Your task to perform on an android device: Clear the cart on bestbuy. Search for "dell xps" on bestbuy, select the first entry, and add it to the cart. Image 0: 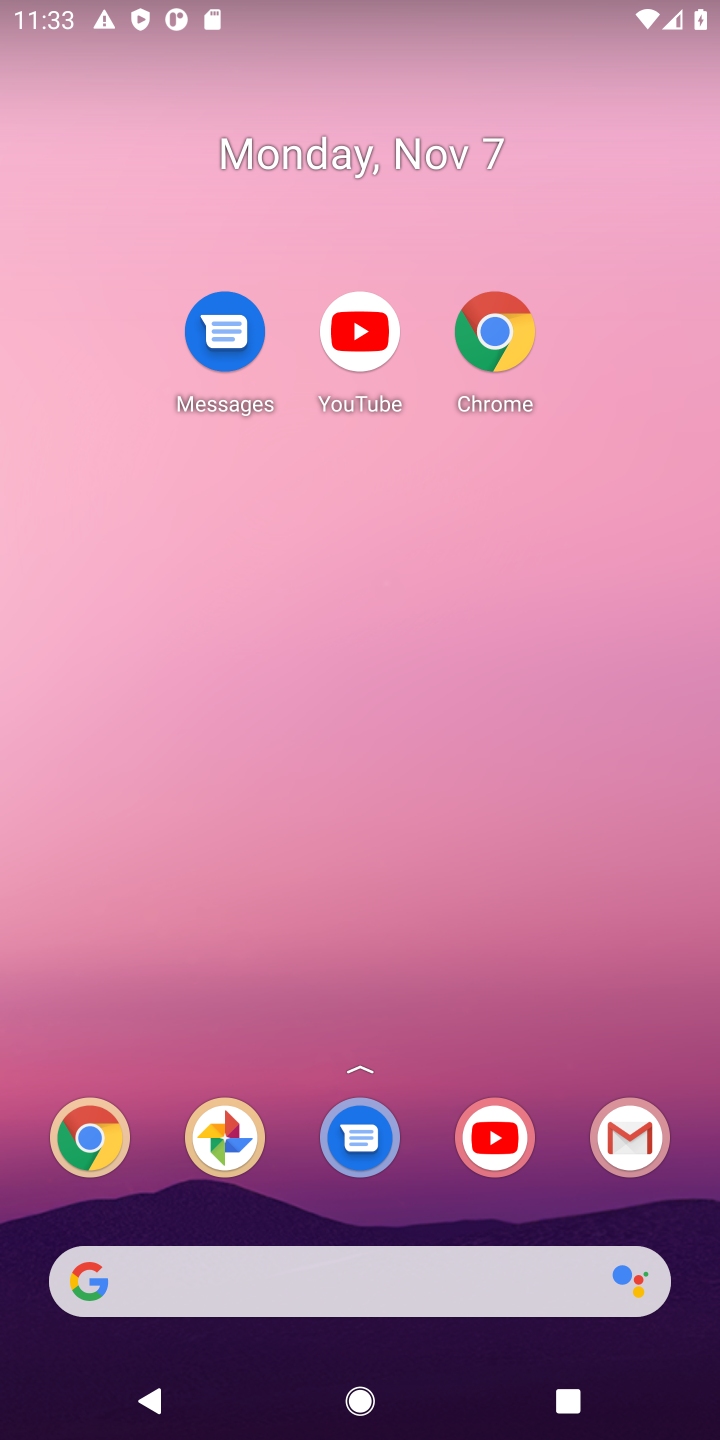
Step 0: drag from (436, 1222) to (500, 286)
Your task to perform on an android device: Clear the cart on bestbuy. Search for "dell xps" on bestbuy, select the first entry, and add it to the cart. Image 1: 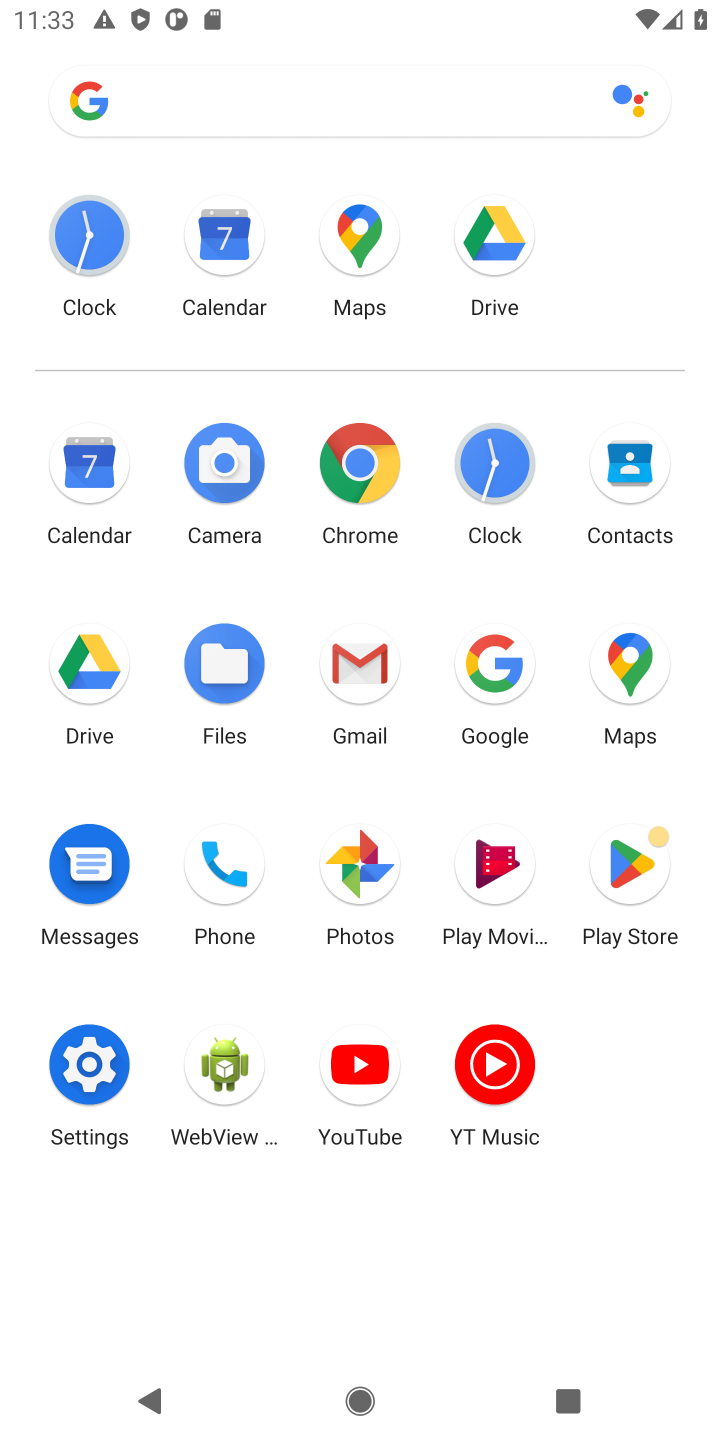
Step 1: click (363, 463)
Your task to perform on an android device: Clear the cart on bestbuy. Search for "dell xps" on bestbuy, select the first entry, and add it to the cart. Image 2: 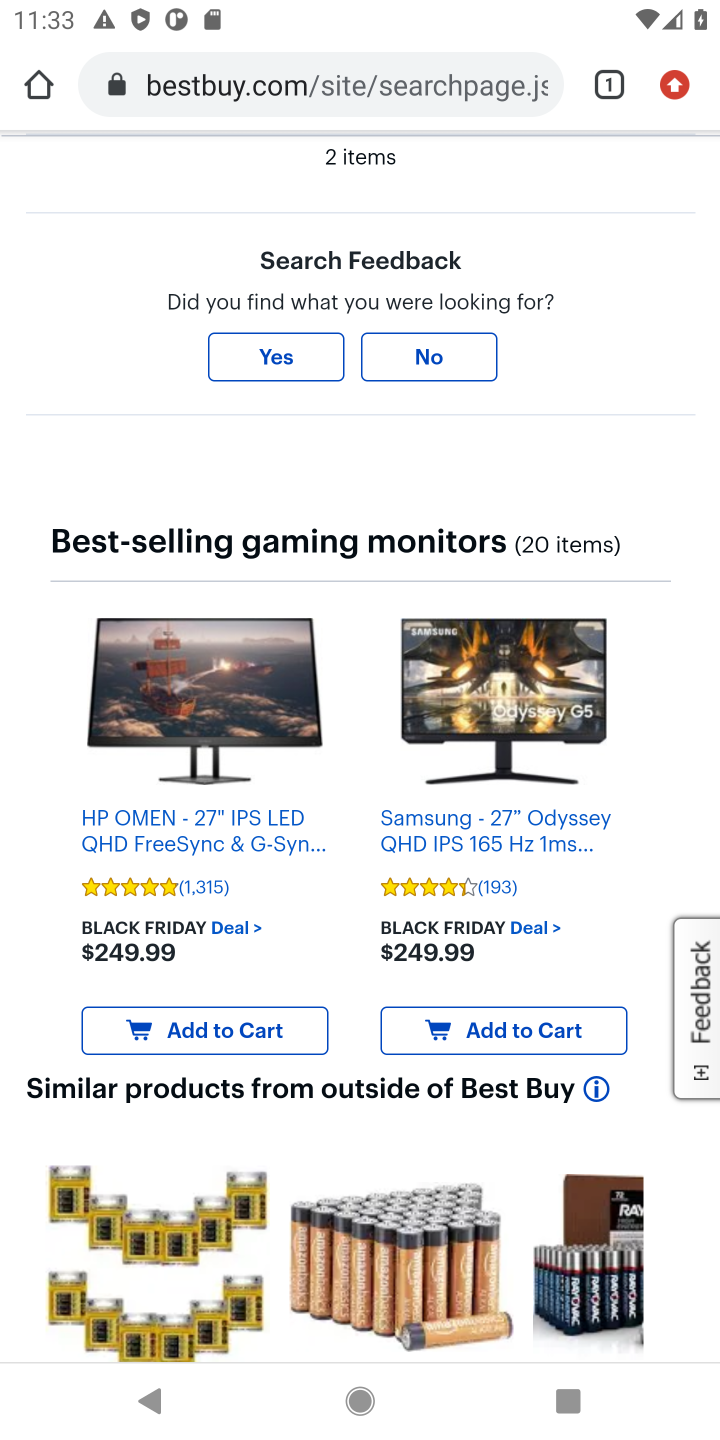
Step 2: click (449, 86)
Your task to perform on an android device: Clear the cart on bestbuy. Search for "dell xps" on bestbuy, select the first entry, and add it to the cart. Image 3: 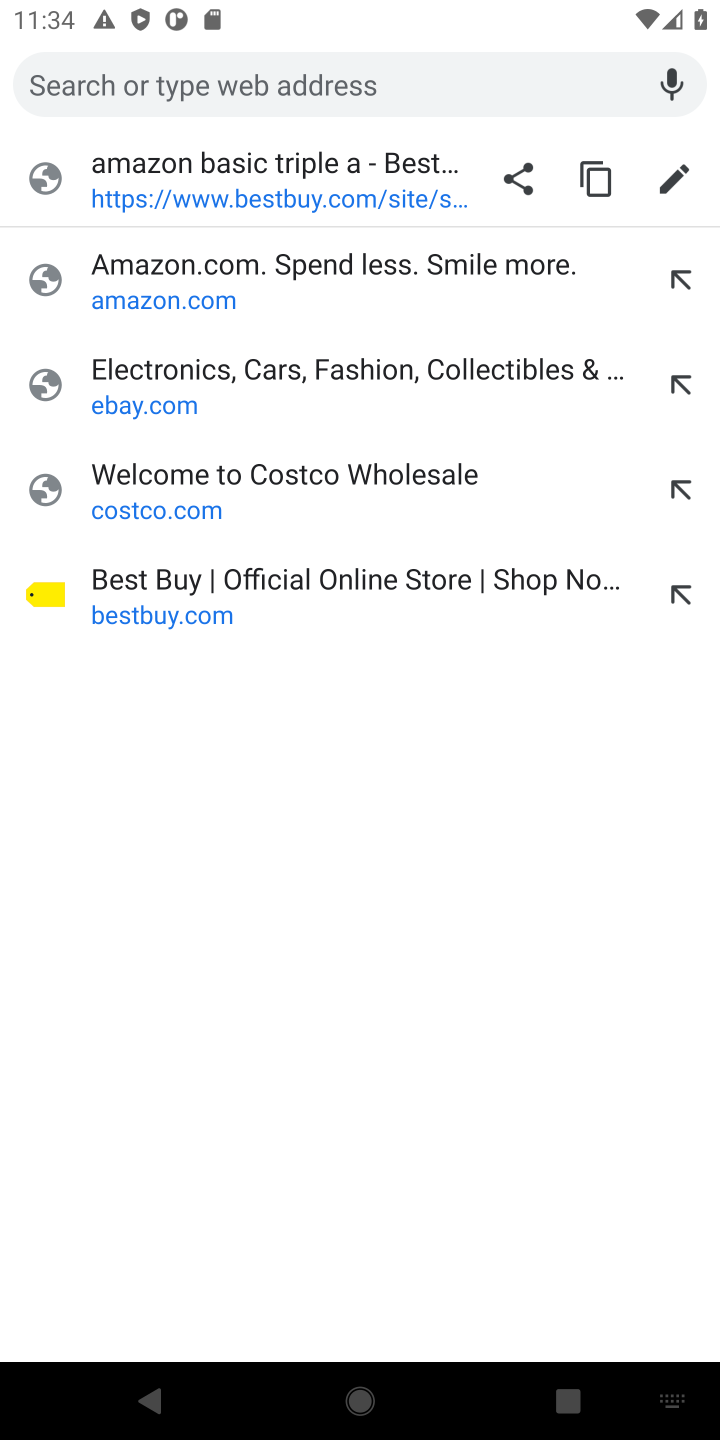
Step 3: type "bestbuy.com"
Your task to perform on an android device: Clear the cart on bestbuy. Search for "dell xps" on bestbuy, select the first entry, and add it to the cart. Image 4: 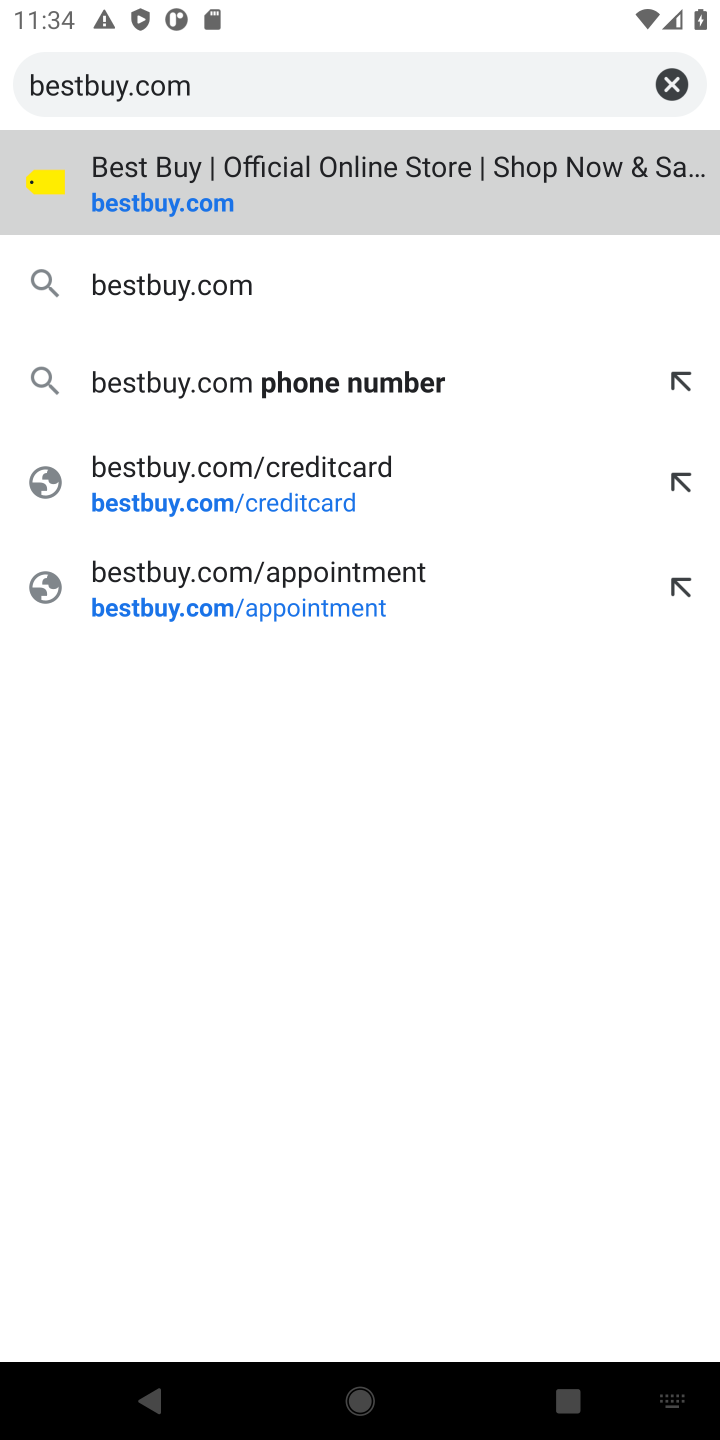
Step 4: press enter
Your task to perform on an android device: Clear the cart on bestbuy. Search for "dell xps" on bestbuy, select the first entry, and add it to the cart. Image 5: 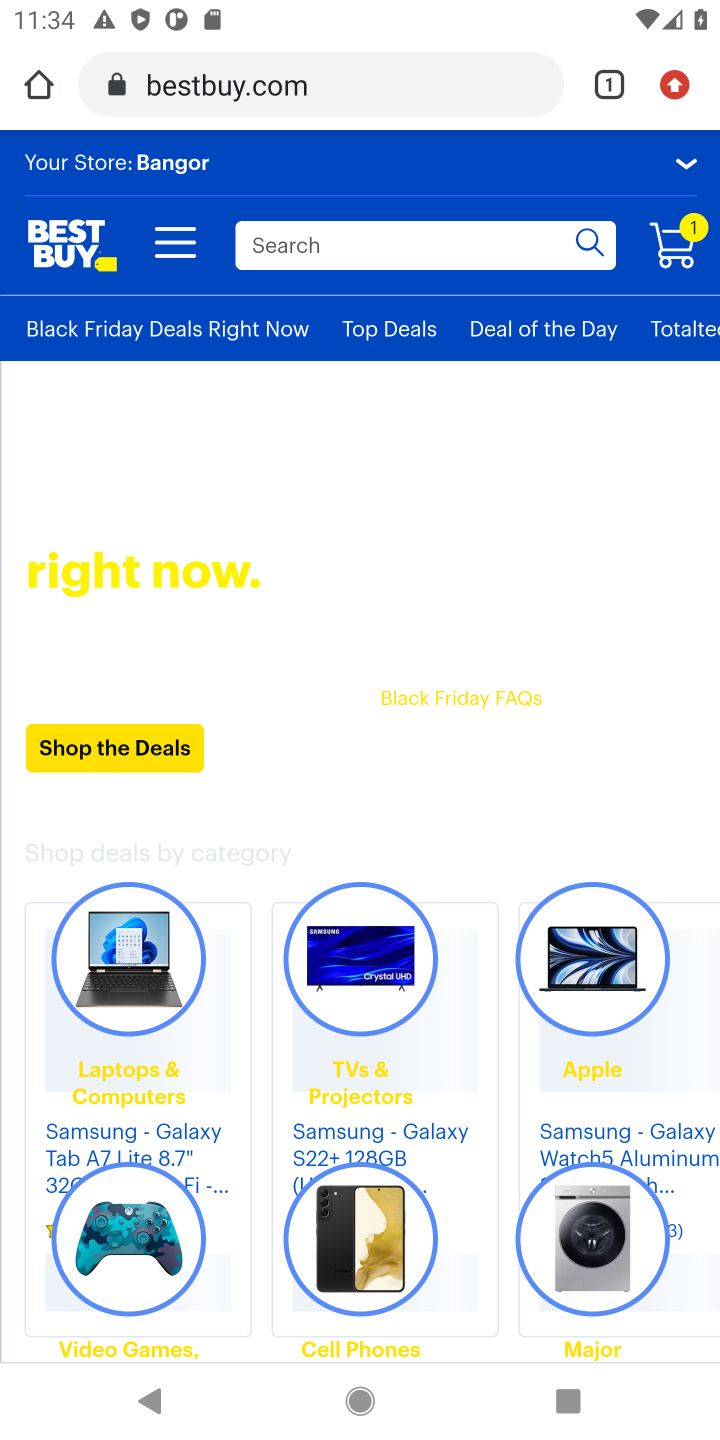
Step 5: click (699, 219)
Your task to perform on an android device: Clear the cart on bestbuy. Search for "dell xps" on bestbuy, select the first entry, and add it to the cart. Image 6: 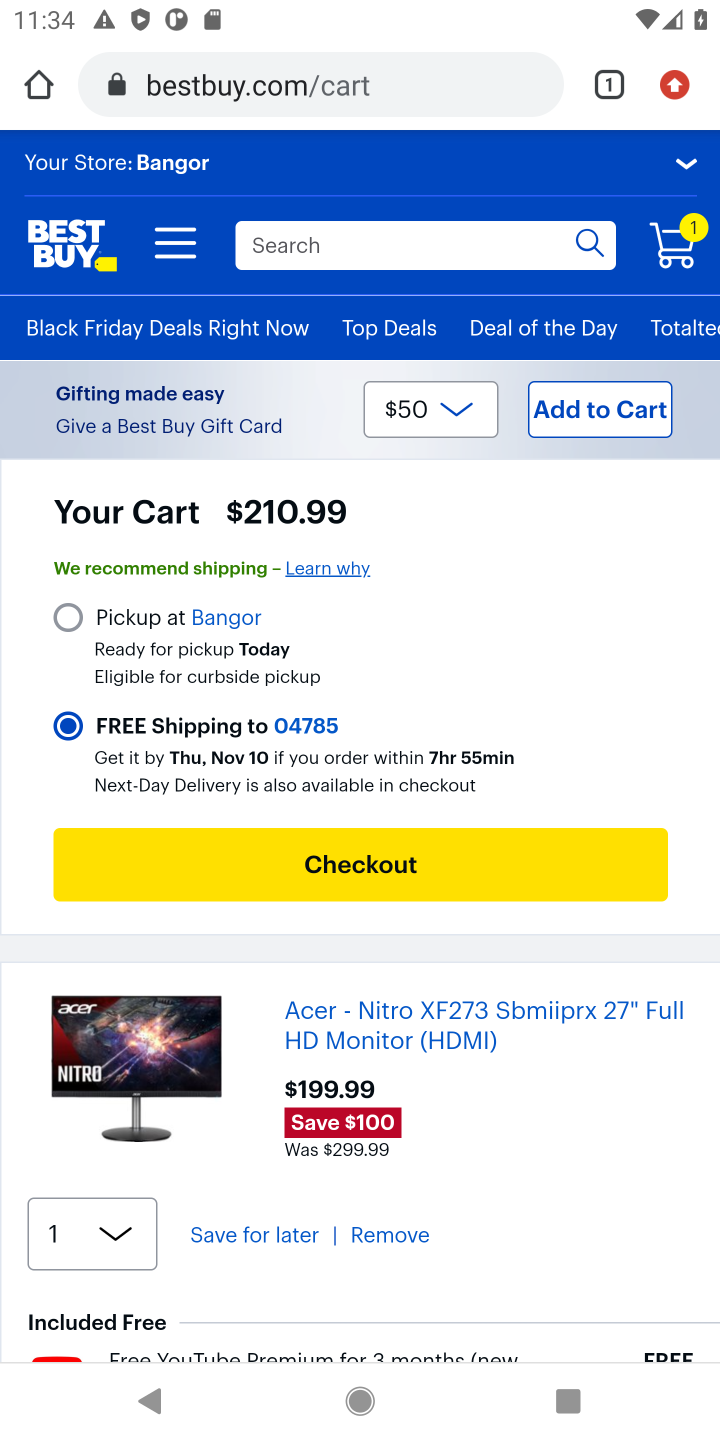
Step 6: click (379, 1230)
Your task to perform on an android device: Clear the cart on bestbuy. Search for "dell xps" on bestbuy, select the first entry, and add it to the cart. Image 7: 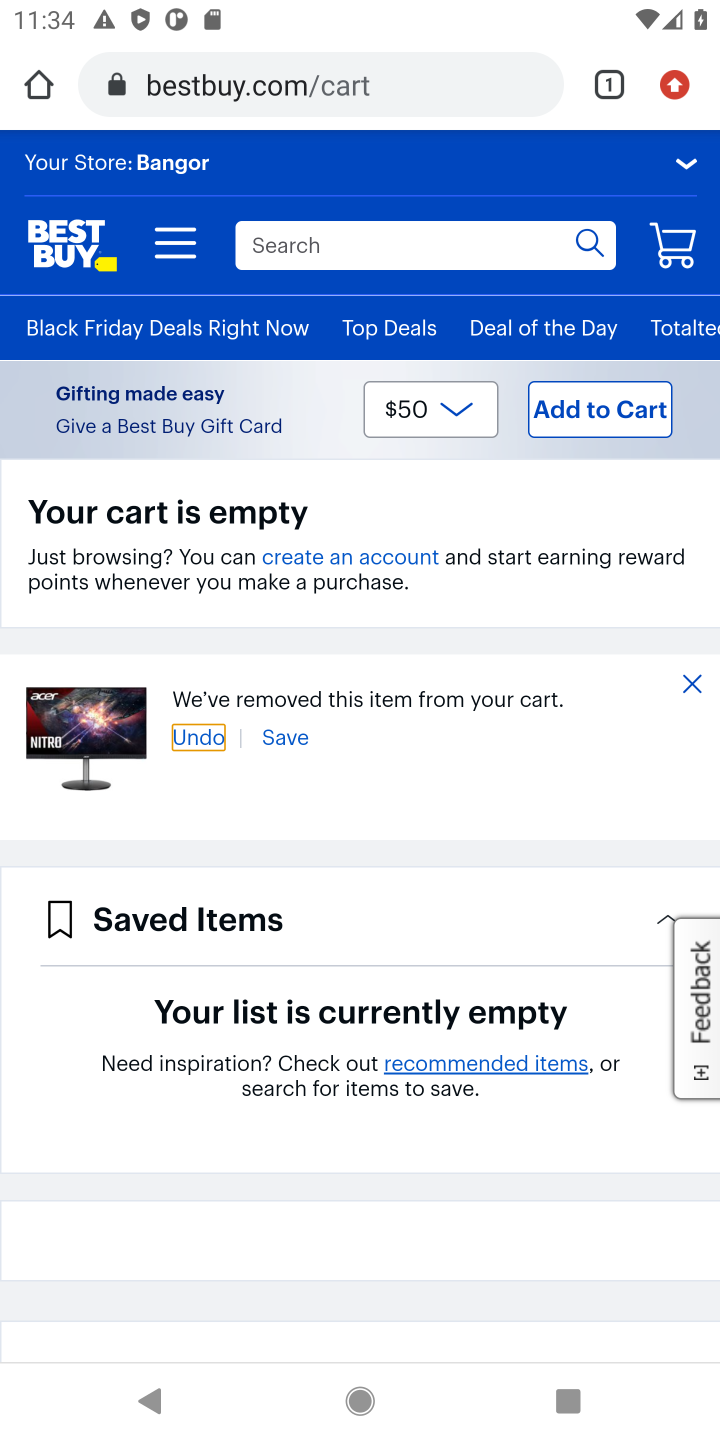
Step 7: click (464, 245)
Your task to perform on an android device: Clear the cart on bestbuy. Search for "dell xps" on bestbuy, select the first entry, and add it to the cart. Image 8: 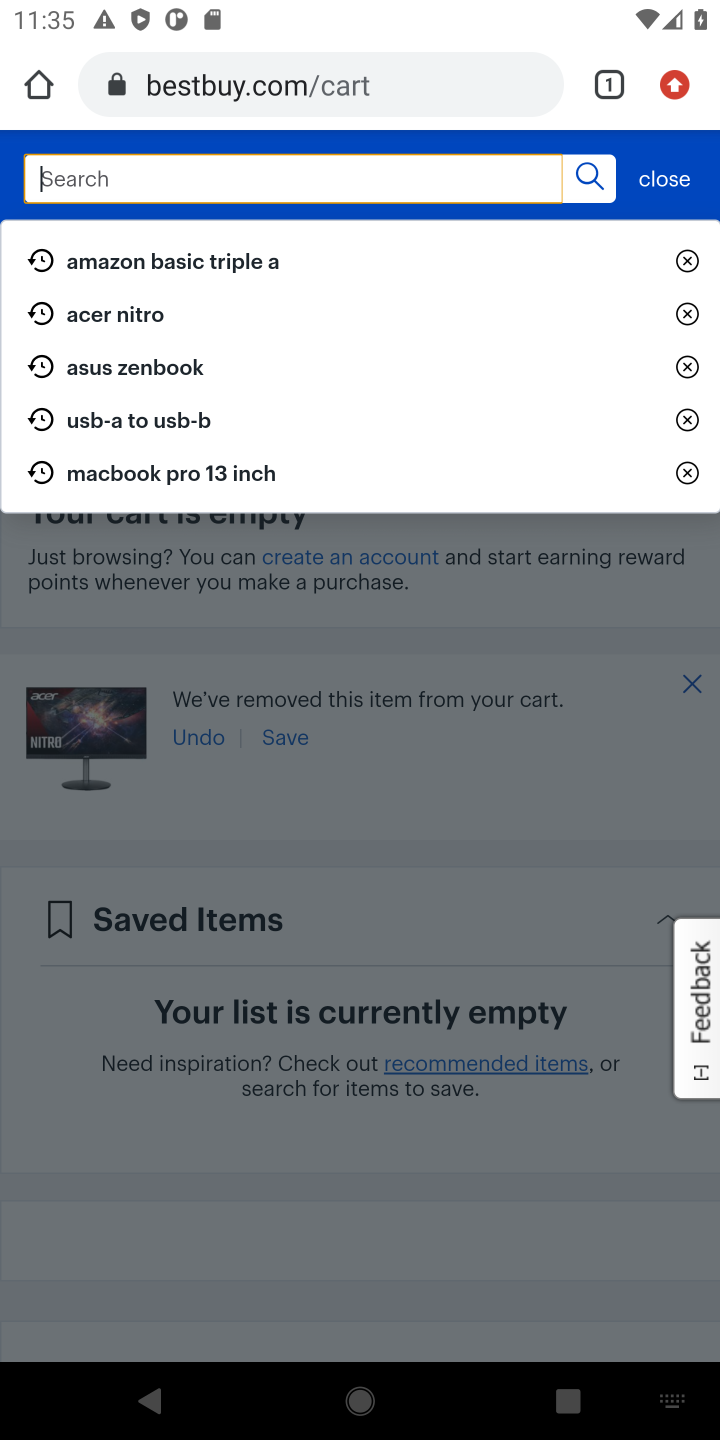
Step 8: type "dell xps"
Your task to perform on an android device: Clear the cart on bestbuy. Search for "dell xps" on bestbuy, select the first entry, and add it to the cart. Image 9: 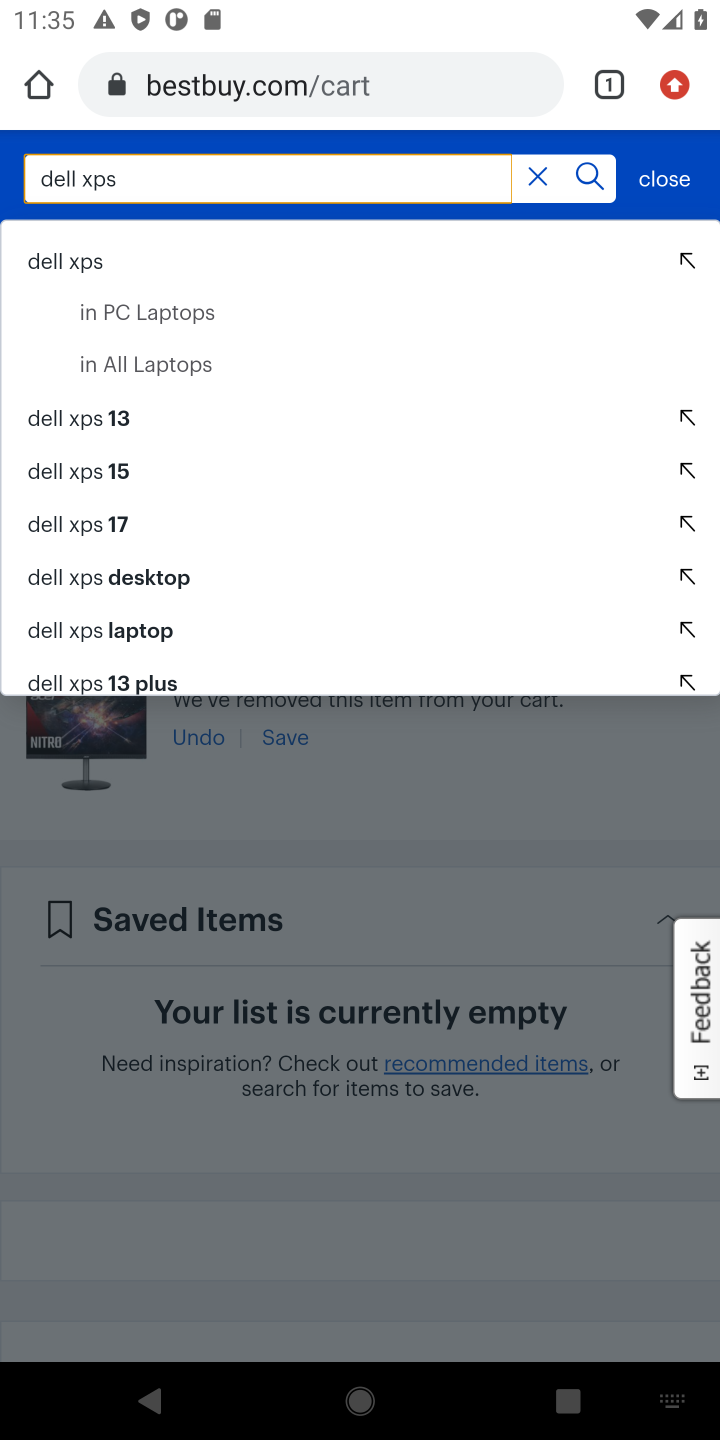
Step 9: press enter
Your task to perform on an android device: Clear the cart on bestbuy. Search for "dell xps" on bestbuy, select the first entry, and add it to the cart. Image 10: 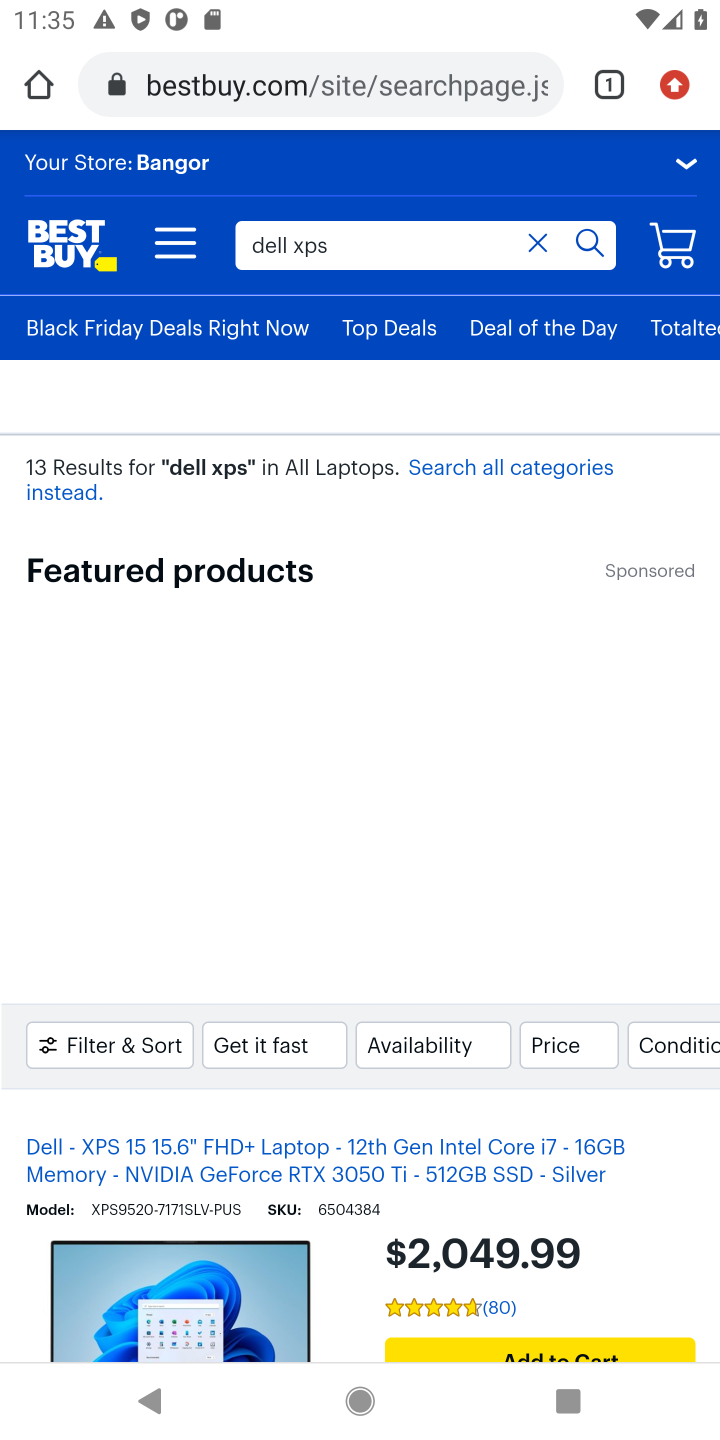
Step 10: drag from (310, 1167) to (419, 552)
Your task to perform on an android device: Clear the cart on bestbuy. Search for "dell xps" on bestbuy, select the first entry, and add it to the cart. Image 11: 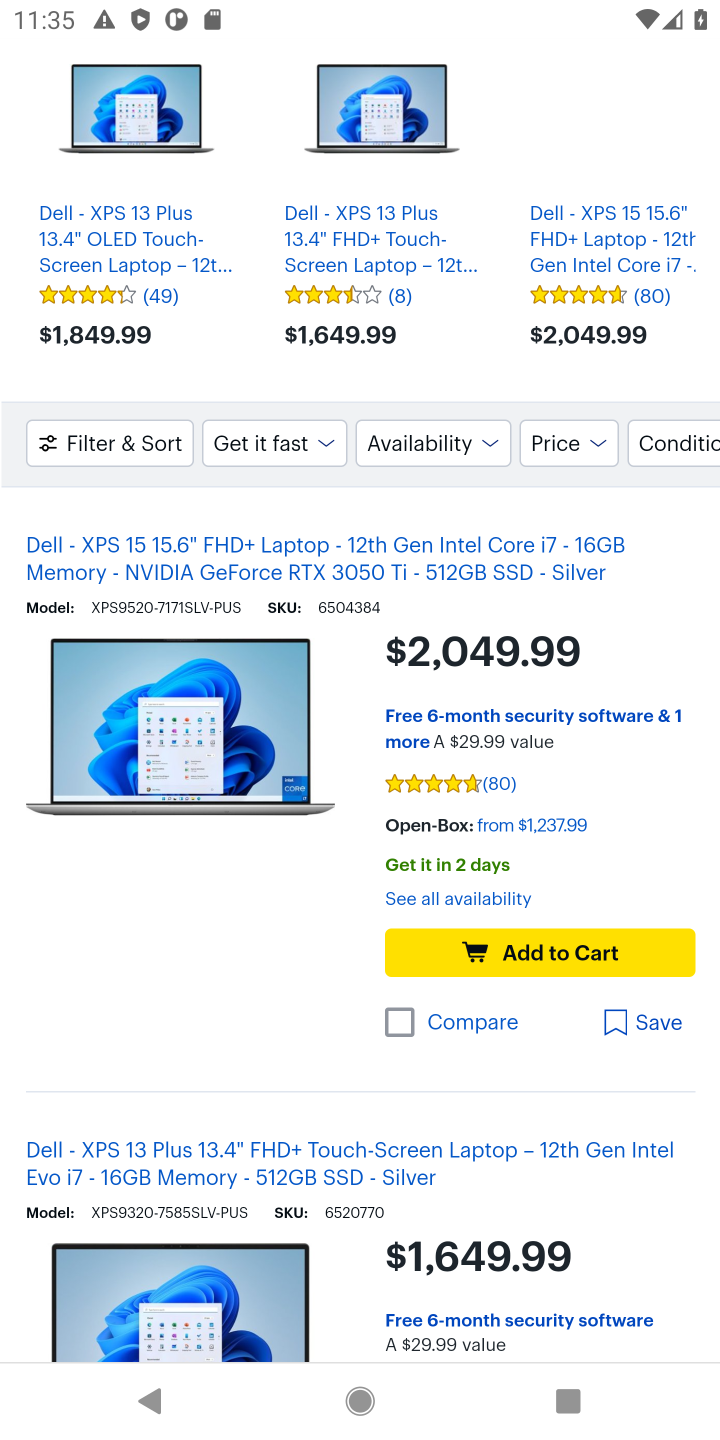
Step 11: click (546, 945)
Your task to perform on an android device: Clear the cart on bestbuy. Search for "dell xps" on bestbuy, select the first entry, and add it to the cart. Image 12: 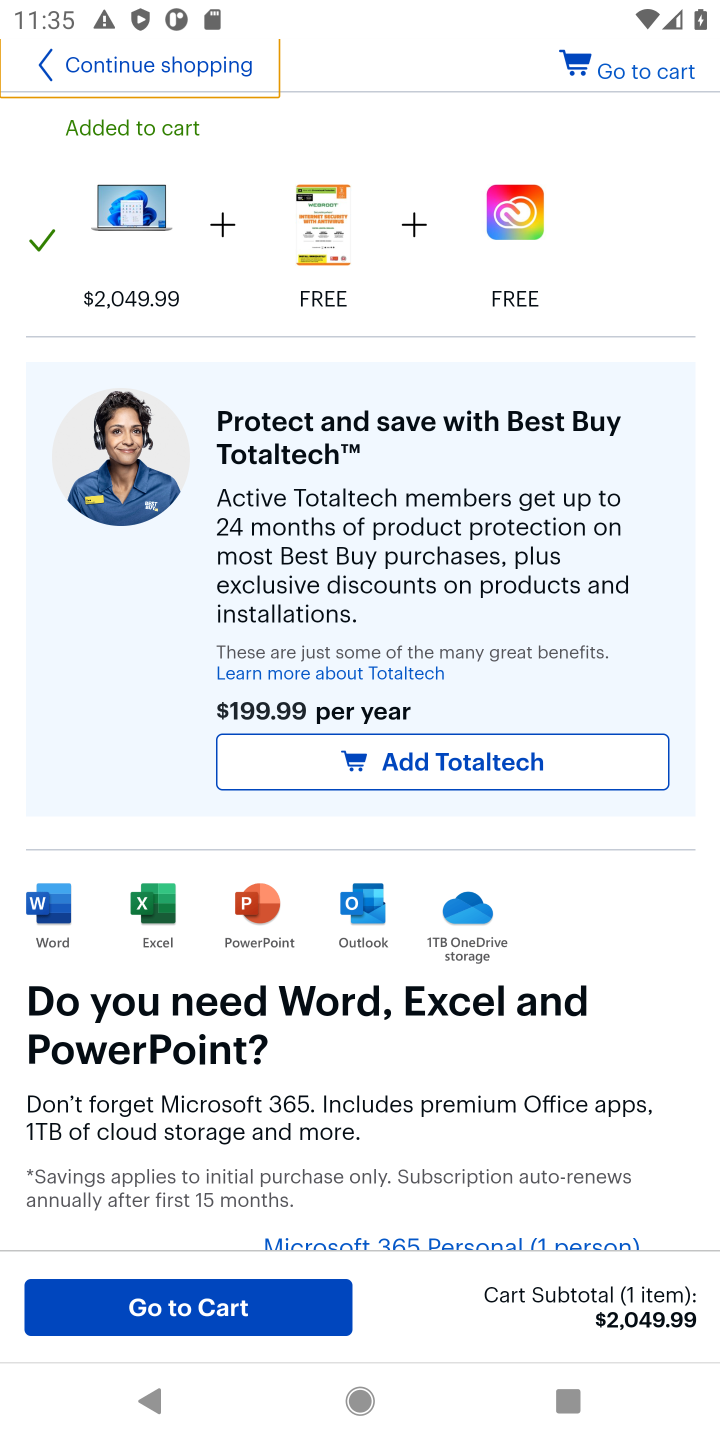
Step 12: task complete